Your task to perform on an android device: turn on data saver in the chrome app Image 0: 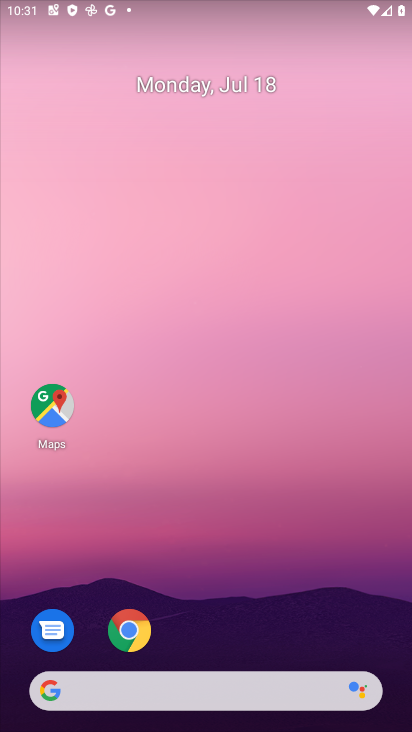
Step 0: drag from (321, 618) to (254, 115)
Your task to perform on an android device: turn on data saver in the chrome app Image 1: 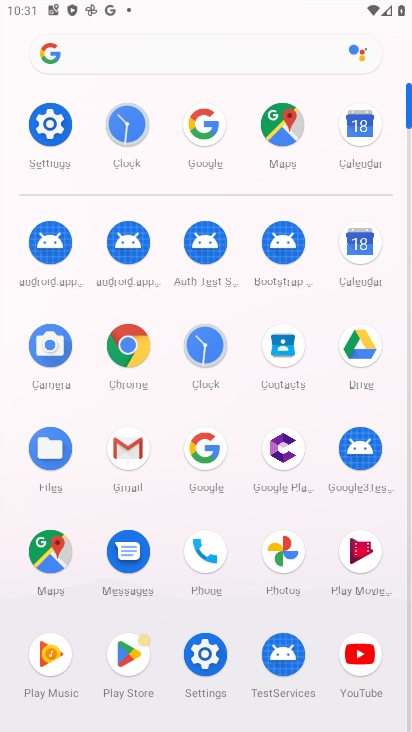
Step 1: click (124, 336)
Your task to perform on an android device: turn on data saver in the chrome app Image 2: 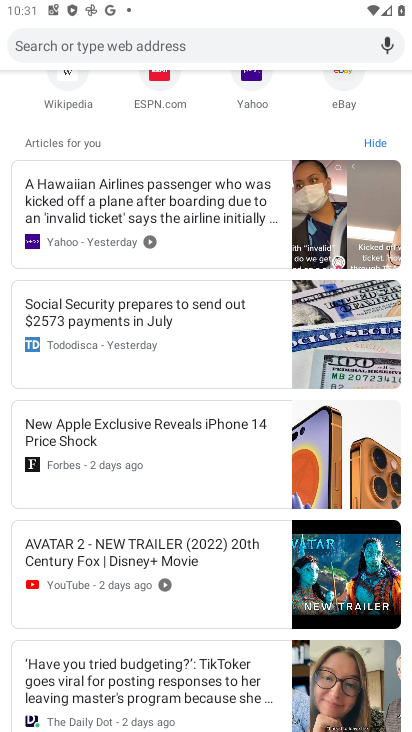
Step 2: press back button
Your task to perform on an android device: turn on data saver in the chrome app Image 3: 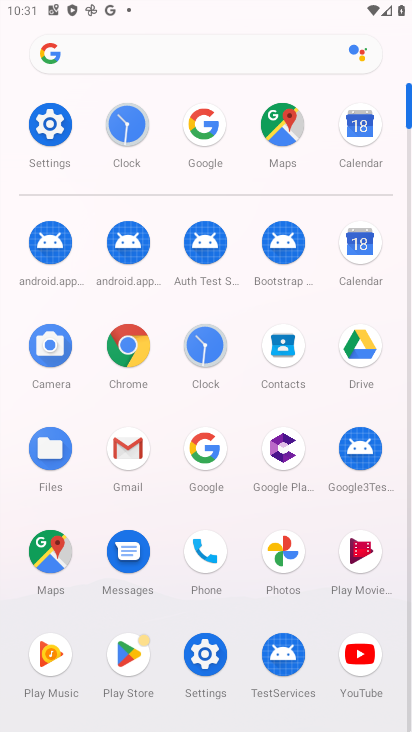
Step 3: click (133, 365)
Your task to perform on an android device: turn on data saver in the chrome app Image 4: 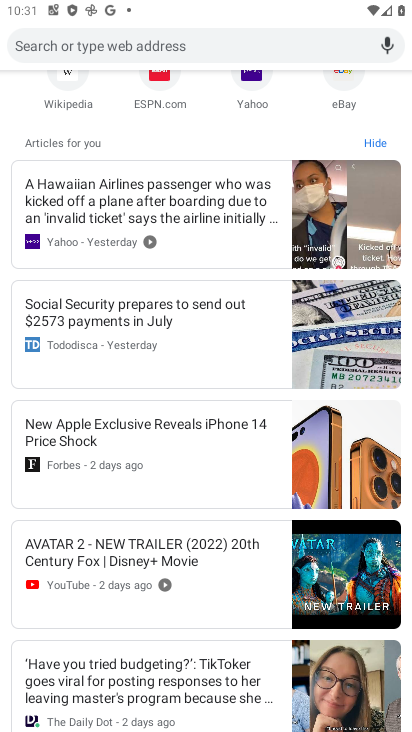
Step 4: press back button
Your task to perform on an android device: turn on data saver in the chrome app Image 5: 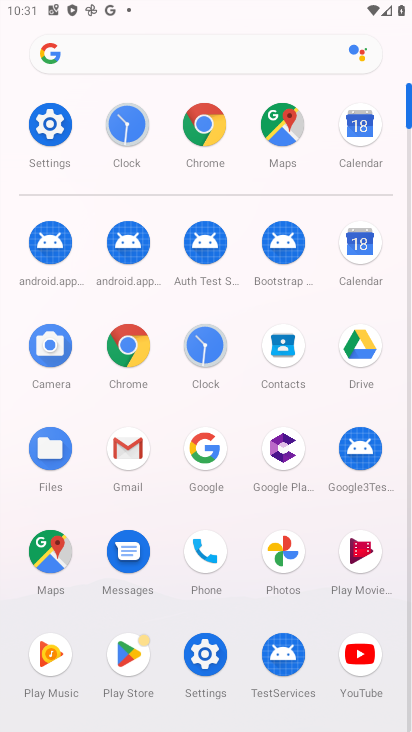
Step 5: click (139, 331)
Your task to perform on an android device: turn on data saver in the chrome app Image 6: 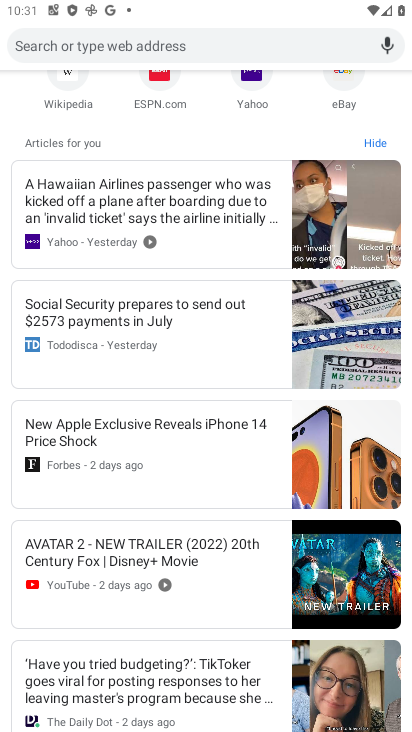
Step 6: click (294, 31)
Your task to perform on an android device: turn on data saver in the chrome app Image 7: 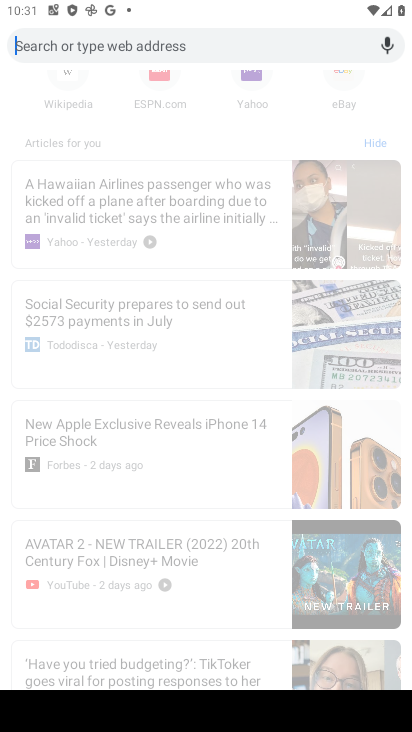
Step 7: task complete